Your task to perform on an android device: Open wifi settings Image 0: 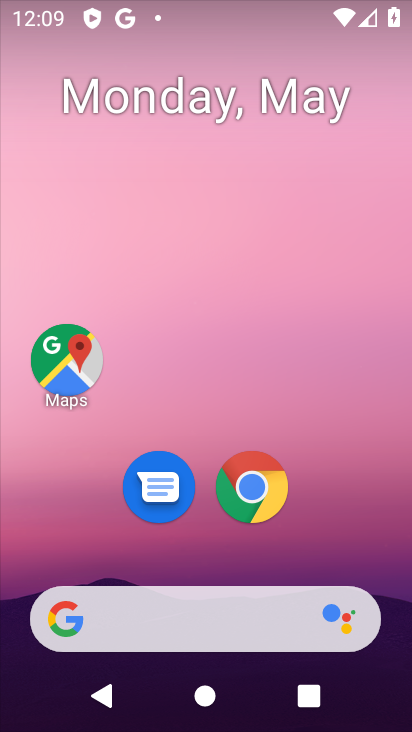
Step 0: drag from (343, 521) to (230, 143)
Your task to perform on an android device: Open wifi settings Image 1: 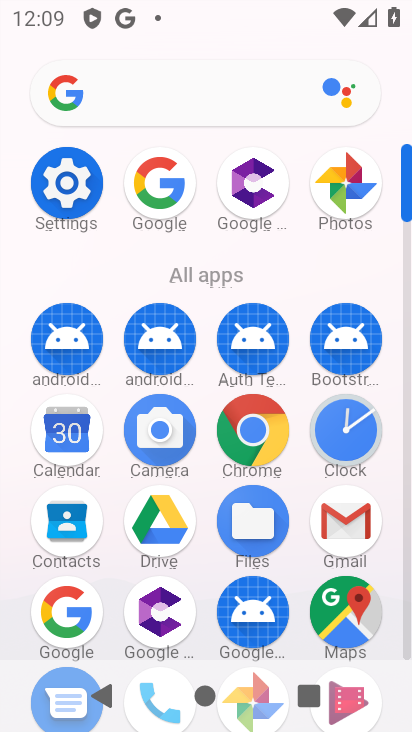
Step 1: click (64, 181)
Your task to perform on an android device: Open wifi settings Image 2: 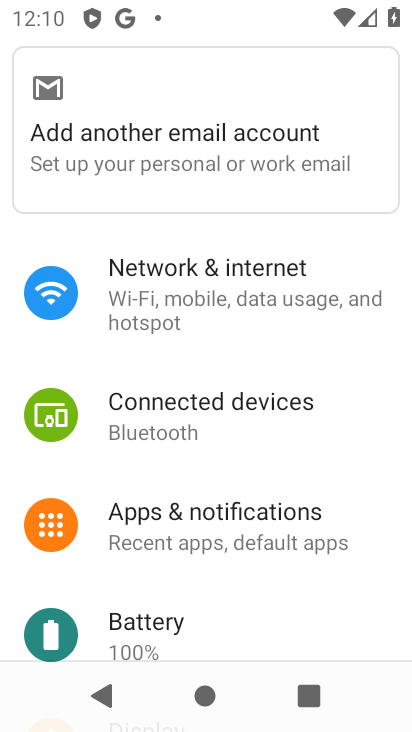
Step 2: click (175, 271)
Your task to perform on an android device: Open wifi settings Image 3: 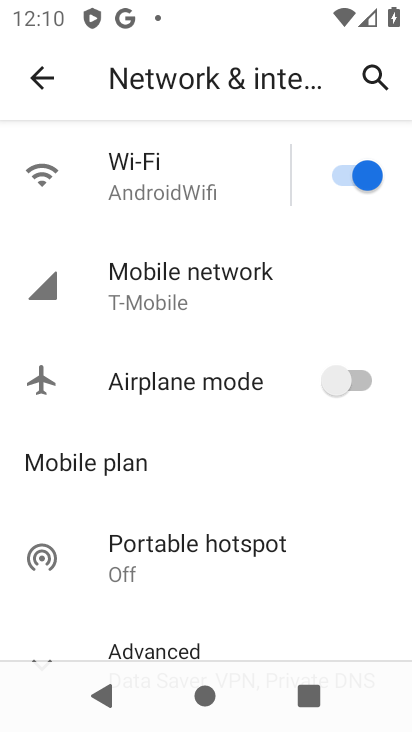
Step 3: click (133, 180)
Your task to perform on an android device: Open wifi settings Image 4: 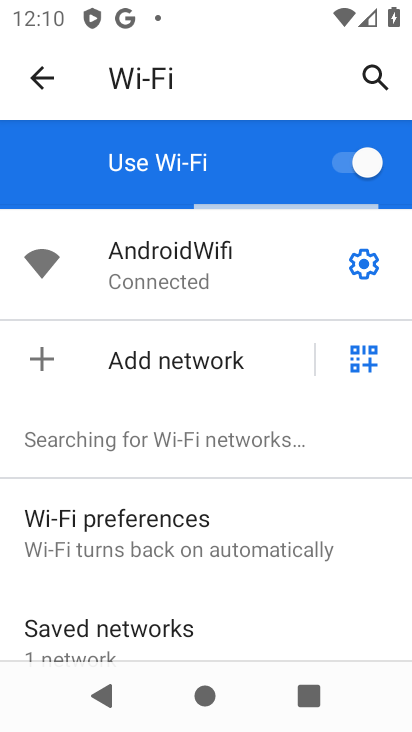
Step 4: click (363, 262)
Your task to perform on an android device: Open wifi settings Image 5: 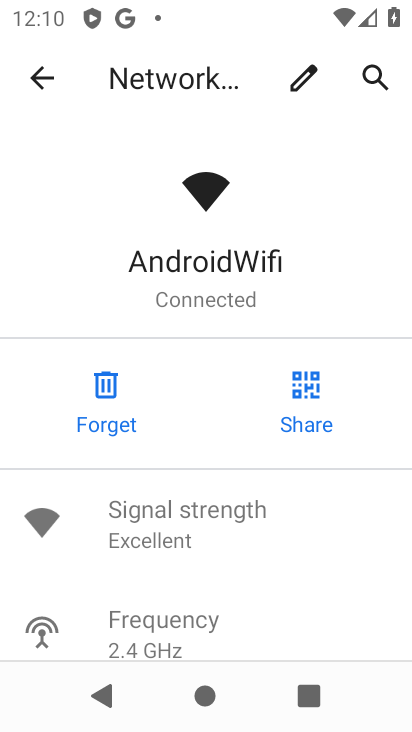
Step 5: task complete